Your task to perform on an android device: turn pop-ups on in chrome Image 0: 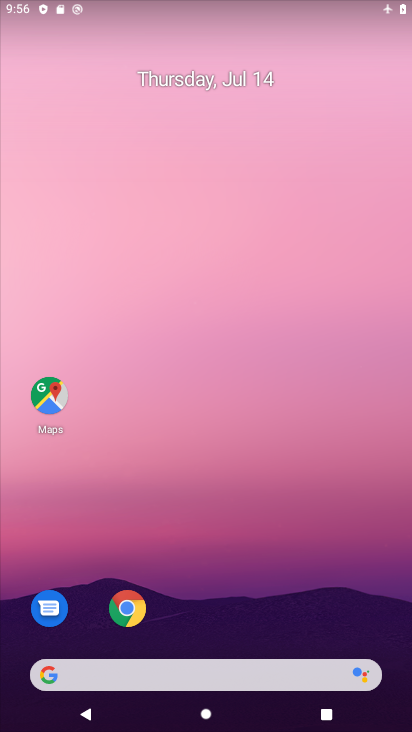
Step 0: click (129, 617)
Your task to perform on an android device: turn pop-ups on in chrome Image 1: 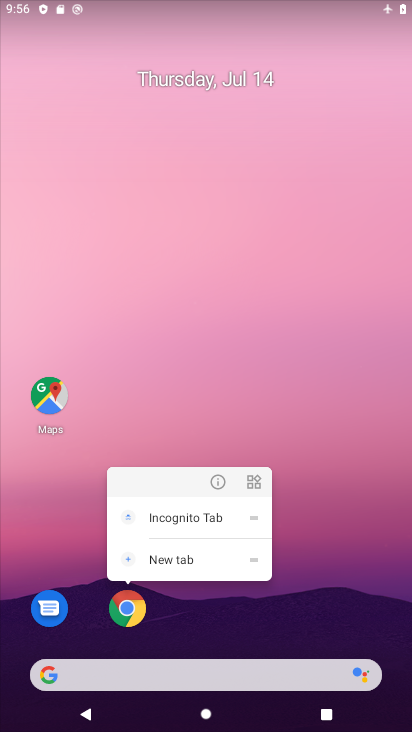
Step 1: click (129, 621)
Your task to perform on an android device: turn pop-ups on in chrome Image 2: 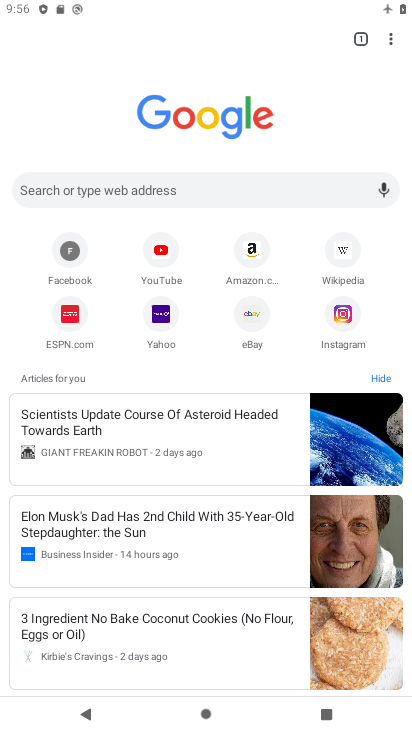
Step 2: click (388, 41)
Your task to perform on an android device: turn pop-ups on in chrome Image 3: 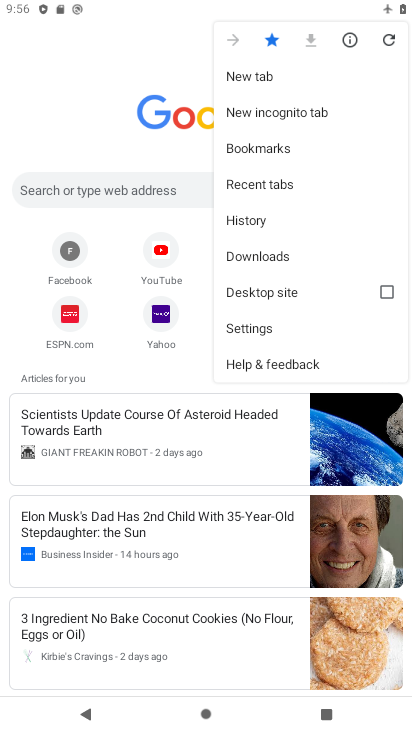
Step 3: click (258, 323)
Your task to perform on an android device: turn pop-ups on in chrome Image 4: 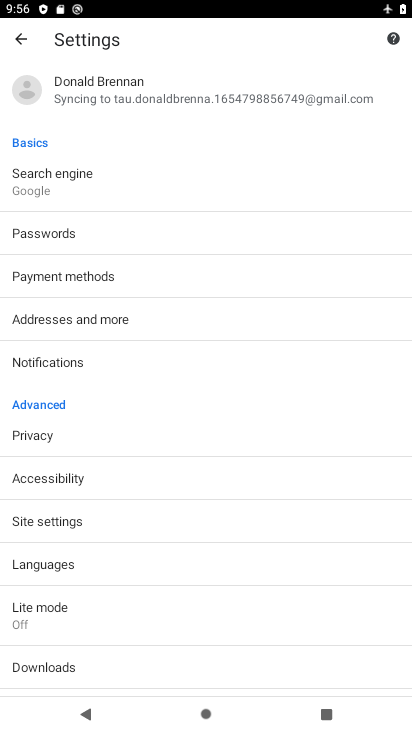
Step 4: click (51, 528)
Your task to perform on an android device: turn pop-ups on in chrome Image 5: 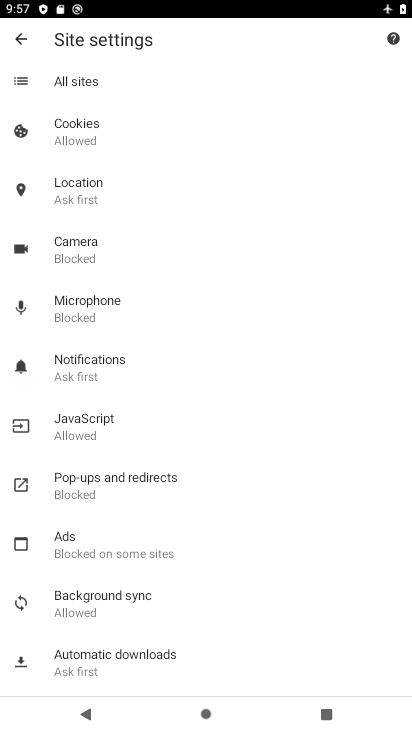
Step 5: click (84, 494)
Your task to perform on an android device: turn pop-ups on in chrome Image 6: 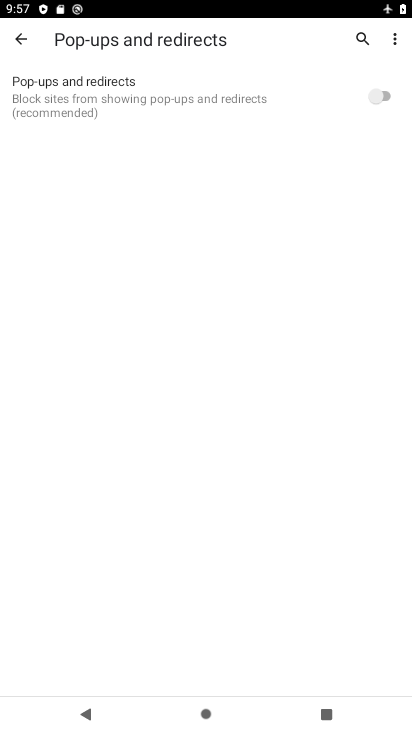
Step 6: click (391, 85)
Your task to perform on an android device: turn pop-ups on in chrome Image 7: 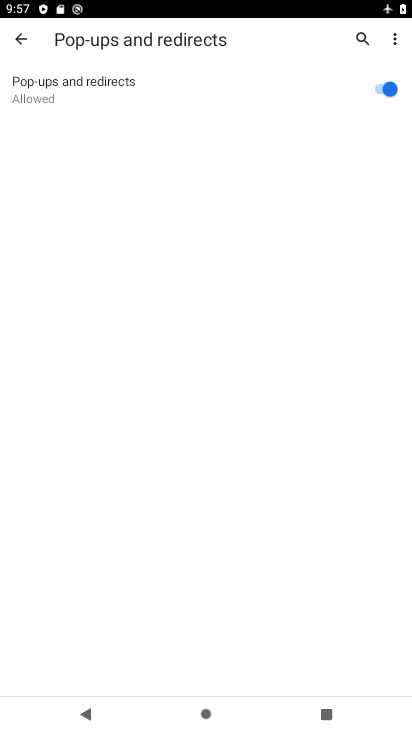
Step 7: task complete